Your task to perform on an android device: Go to location settings Image 0: 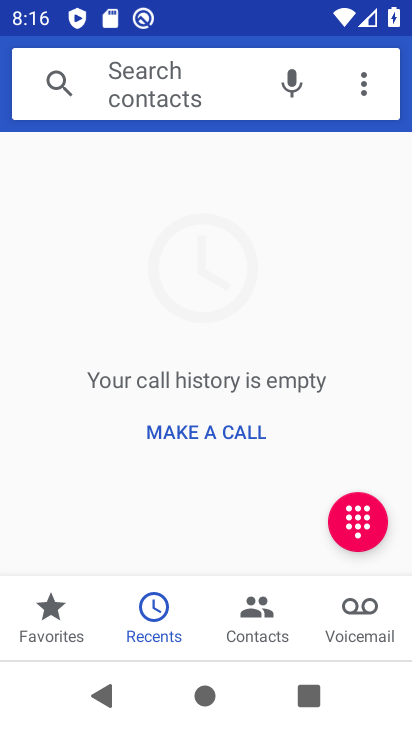
Step 0: press home button
Your task to perform on an android device: Go to location settings Image 1: 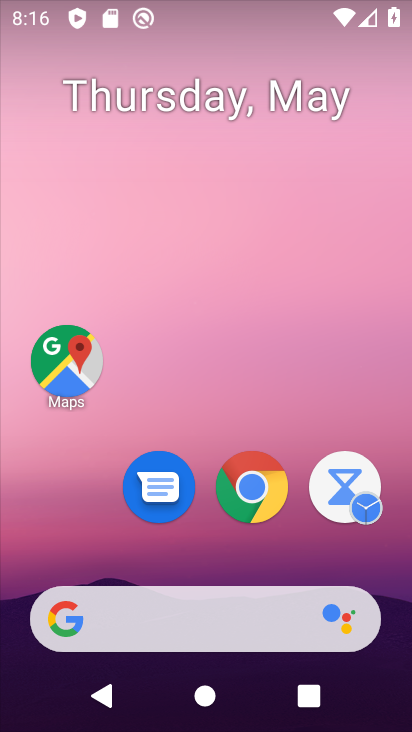
Step 1: drag from (352, 557) to (335, 151)
Your task to perform on an android device: Go to location settings Image 2: 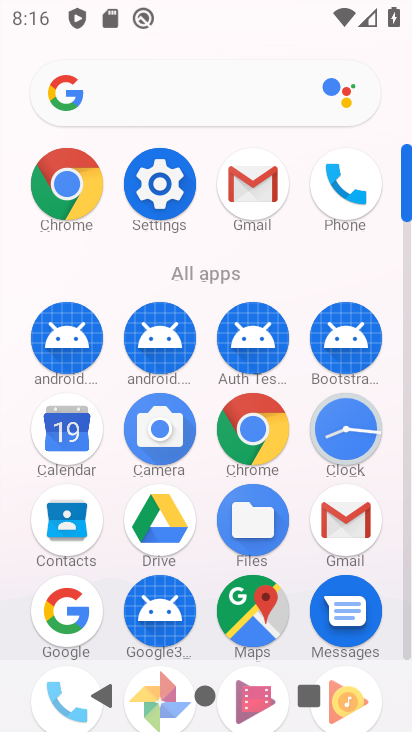
Step 2: drag from (289, 575) to (299, 231)
Your task to perform on an android device: Go to location settings Image 3: 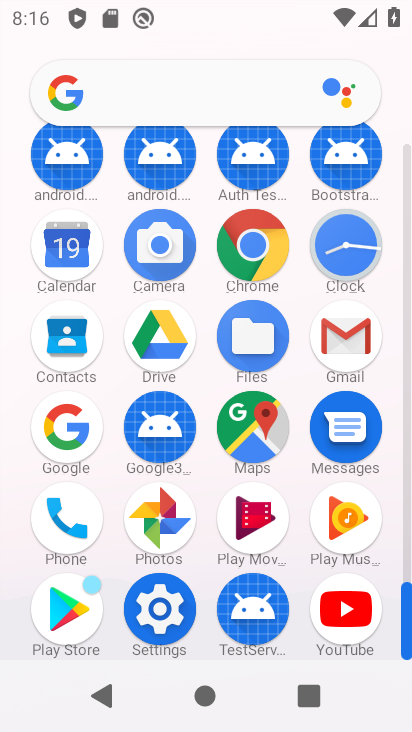
Step 3: click (149, 622)
Your task to perform on an android device: Go to location settings Image 4: 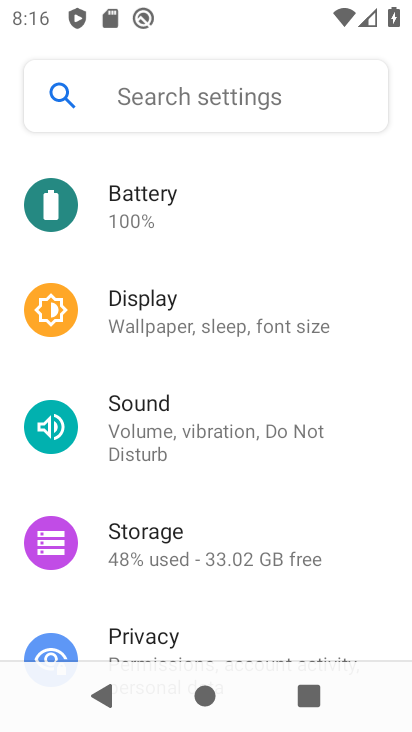
Step 4: drag from (373, 272) to (366, 471)
Your task to perform on an android device: Go to location settings Image 5: 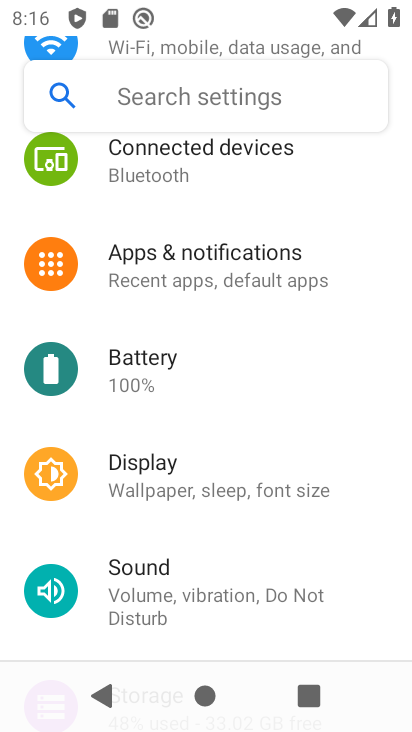
Step 5: drag from (376, 256) to (358, 429)
Your task to perform on an android device: Go to location settings Image 6: 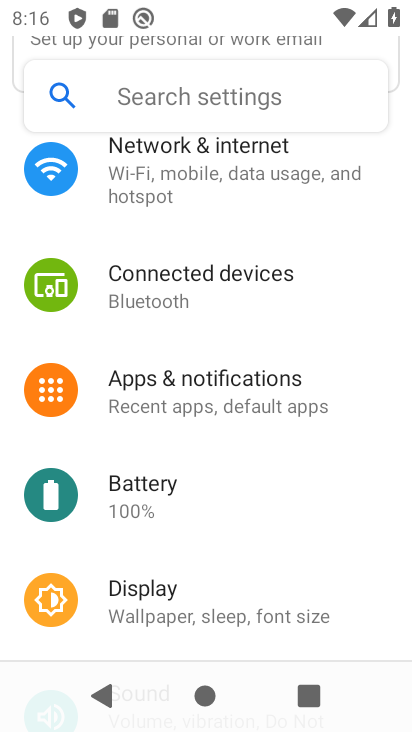
Step 6: drag from (374, 226) to (353, 414)
Your task to perform on an android device: Go to location settings Image 7: 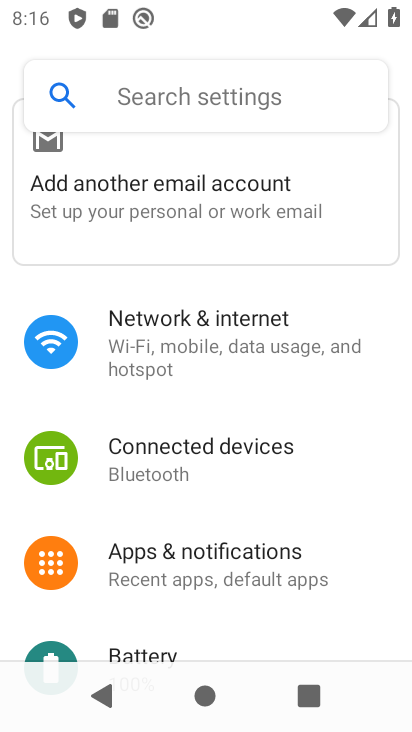
Step 7: drag from (360, 485) to (364, 351)
Your task to perform on an android device: Go to location settings Image 8: 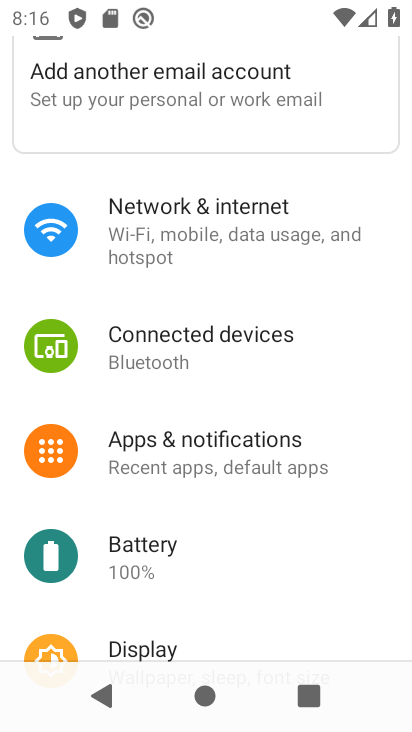
Step 8: drag from (376, 576) to (363, 431)
Your task to perform on an android device: Go to location settings Image 9: 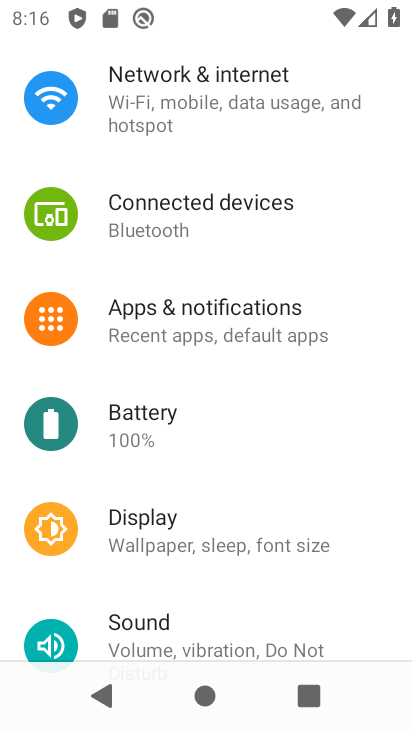
Step 9: drag from (371, 594) to (379, 435)
Your task to perform on an android device: Go to location settings Image 10: 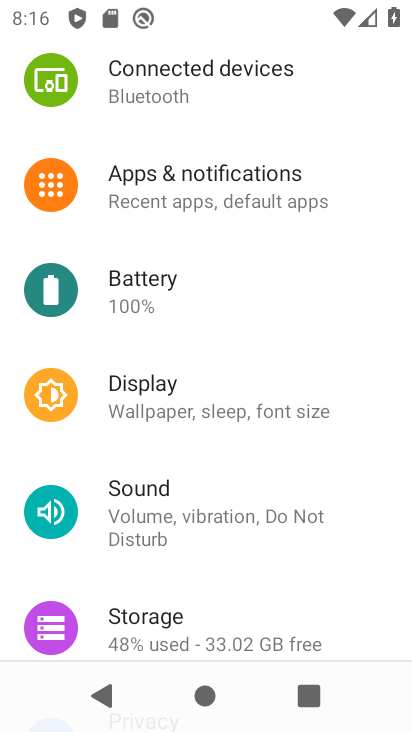
Step 10: drag from (364, 615) to (377, 438)
Your task to perform on an android device: Go to location settings Image 11: 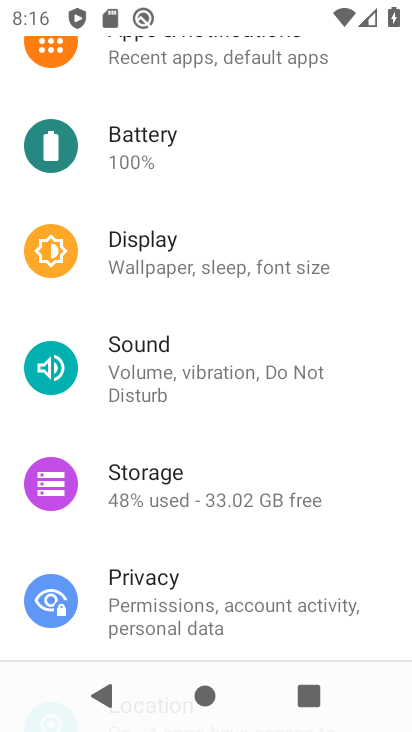
Step 11: drag from (365, 630) to (354, 422)
Your task to perform on an android device: Go to location settings Image 12: 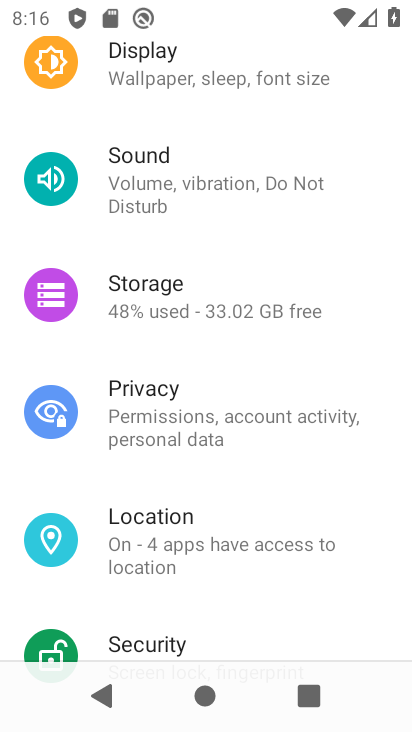
Step 12: drag from (361, 625) to (357, 466)
Your task to perform on an android device: Go to location settings Image 13: 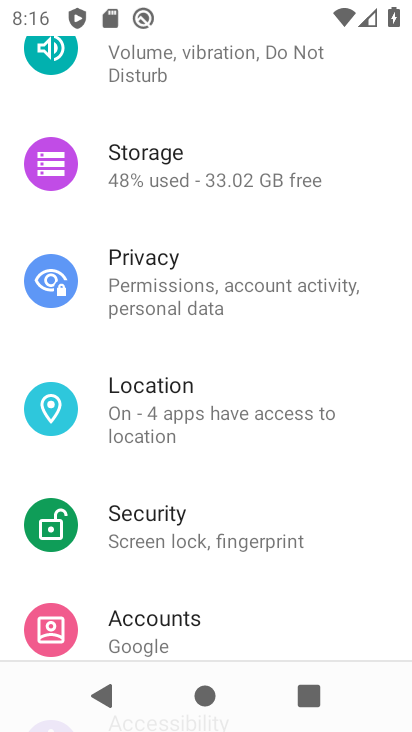
Step 13: drag from (354, 613) to (353, 500)
Your task to perform on an android device: Go to location settings Image 14: 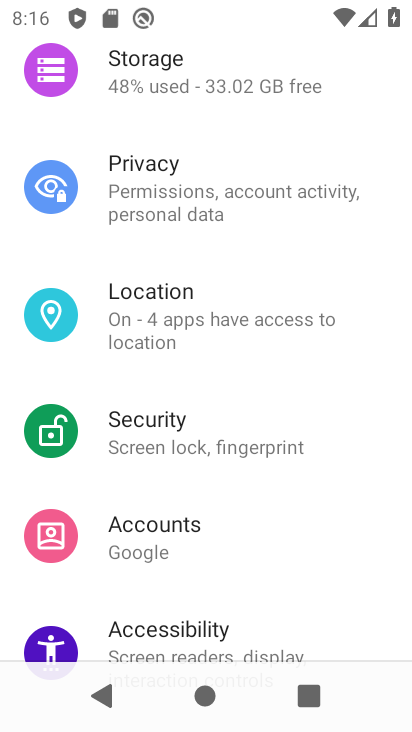
Step 14: drag from (352, 610) to (365, 477)
Your task to perform on an android device: Go to location settings Image 15: 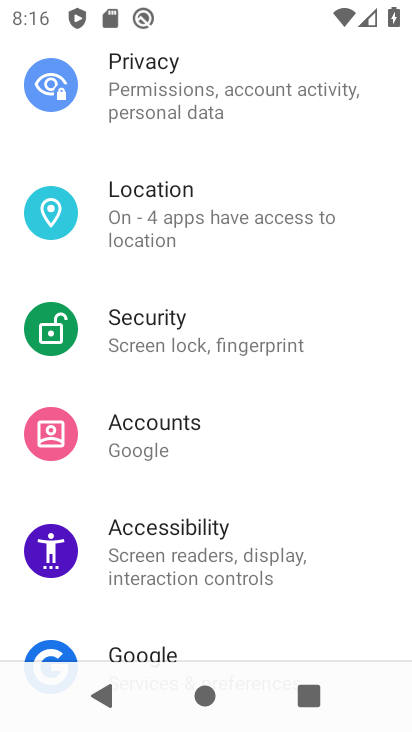
Step 15: drag from (347, 613) to (352, 466)
Your task to perform on an android device: Go to location settings Image 16: 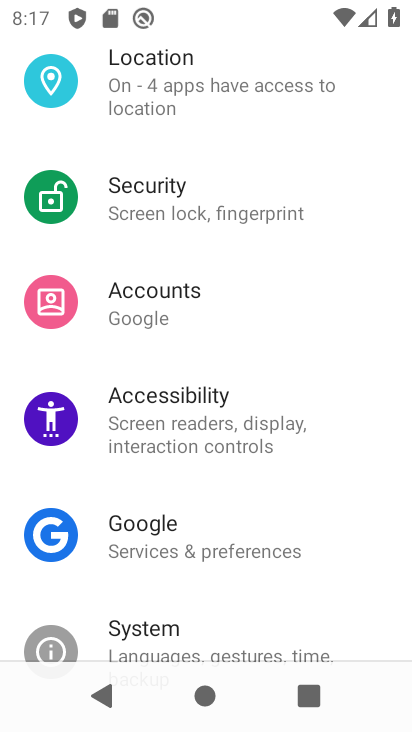
Step 16: drag from (348, 610) to (349, 378)
Your task to perform on an android device: Go to location settings Image 17: 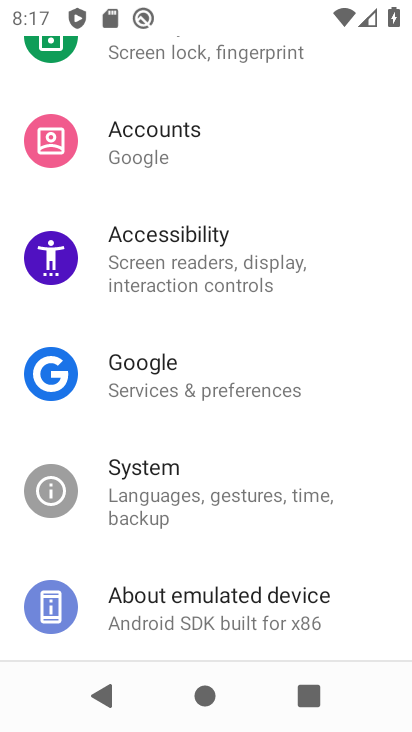
Step 17: drag from (365, 623) to (370, 417)
Your task to perform on an android device: Go to location settings Image 18: 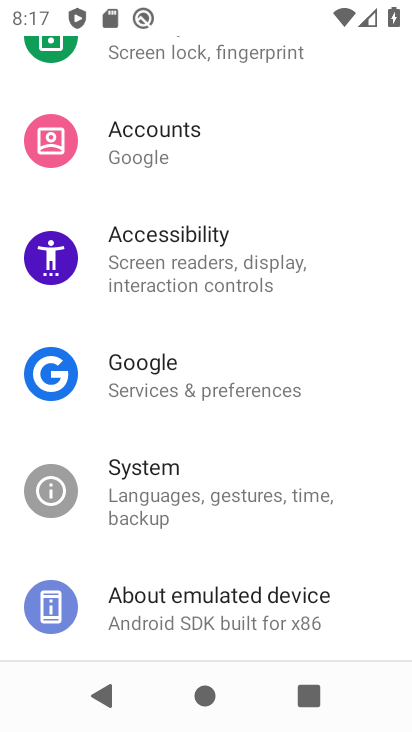
Step 18: drag from (364, 302) to (374, 402)
Your task to perform on an android device: Go to location settings Image 19: 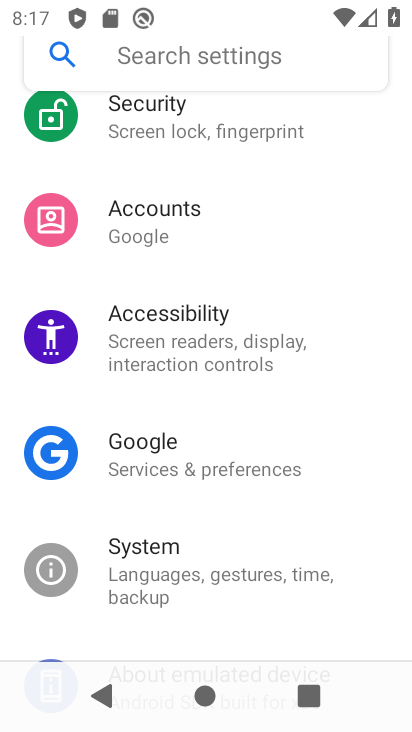
Step 19: drag from (366, 289) to (364, 384)
Your task to perform on an android device: Go to location settings Image 20: 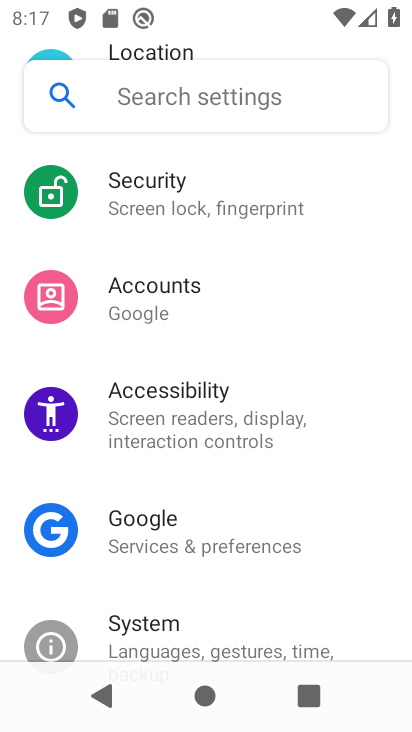
Step 20: drag from (362, 268) to (370, 368)
Your task to perform on an android device: Go to location settings Image 21: 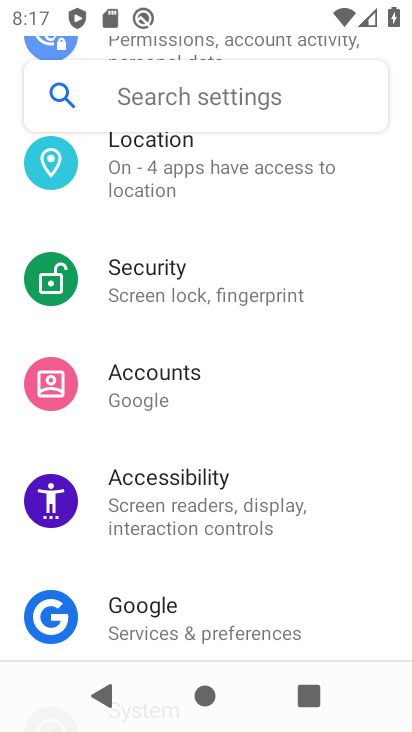
Step 21: drag from (364, 265) to (363, 334)
Your task to perform on an android device: Go to location settings Image 22: 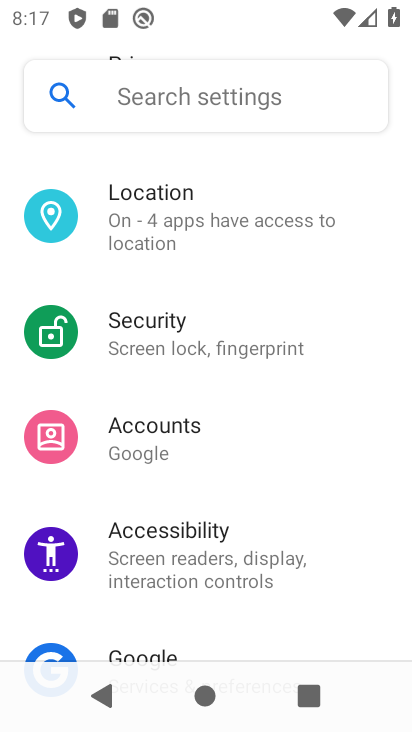
Step 22: click (341, 236)
Your task to perform on an android device: Go to location settings Image 23: 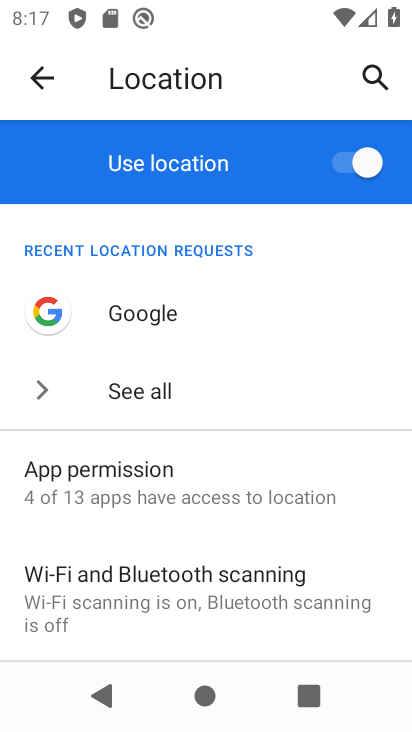
Step 23: task complete